Your task to perform on an android device: change the clock style Image 0: 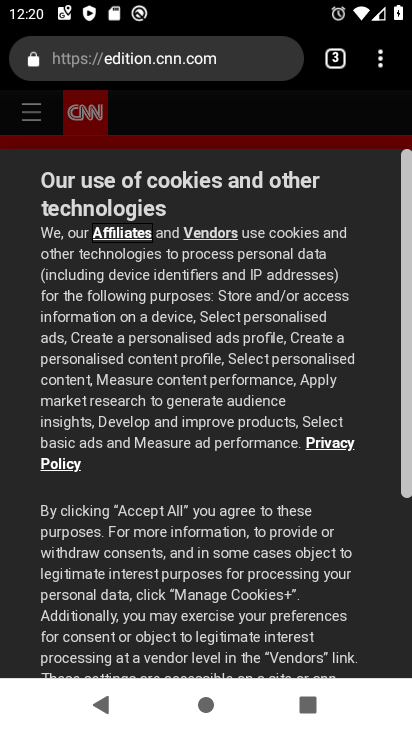
Step 0: press home button
Your task to perform on an android device: change the clock style Image 1: 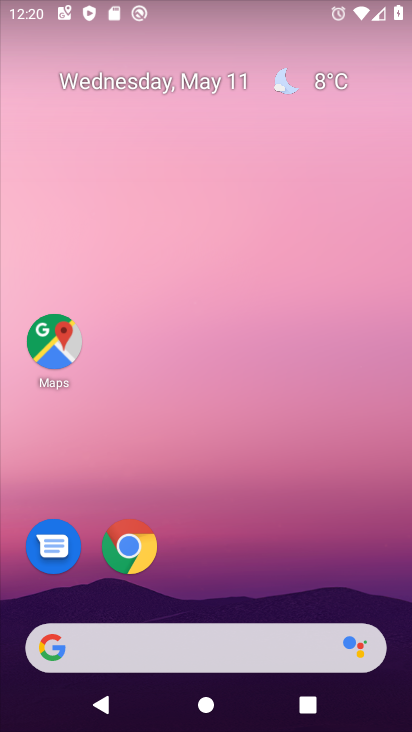
Step 1: drag from (272, 637) to (404, 74)
Your task to perform on an android device: change the clock style Image 2: 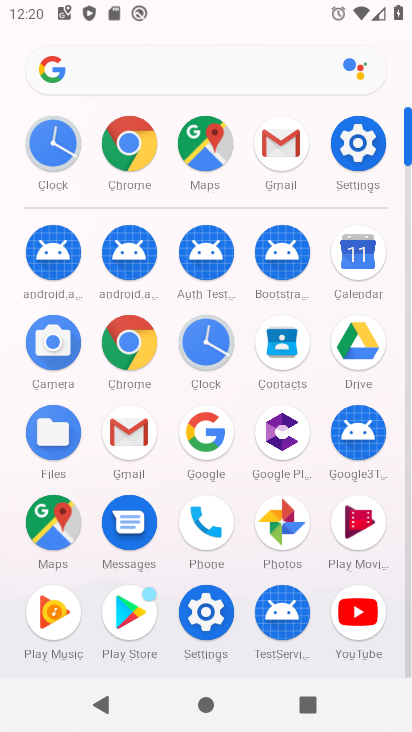
Step 2: click (218, 355)
Your task to perform on an android device: change the clock style Image 3: 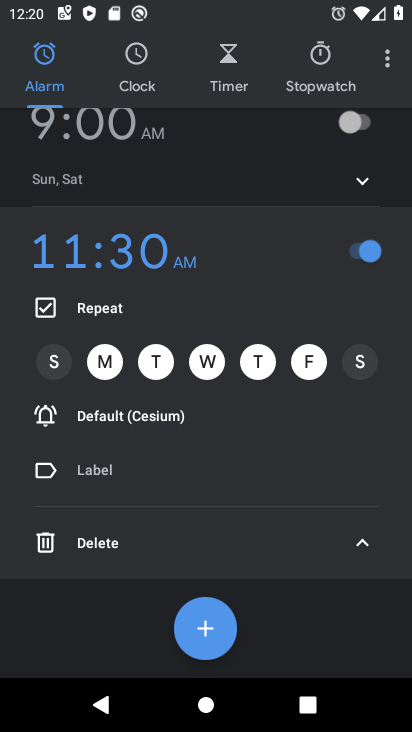
Step 3: click (387, 57)
Your task to perform on an android device: change the clock style Image 4: 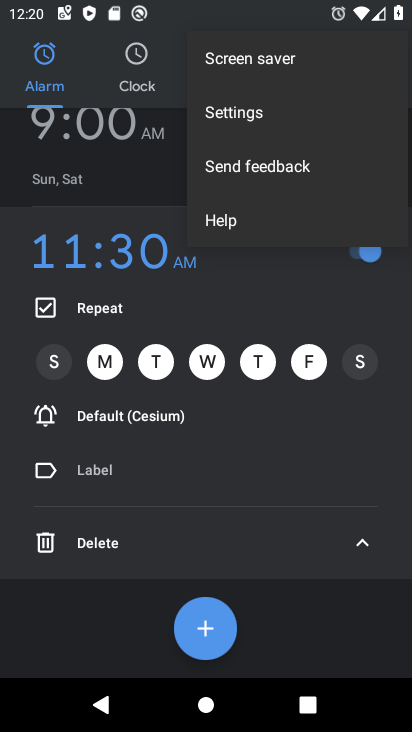
Step 4: click (250, 118)
Your task to perform on an android device: change the clock style Image 5: 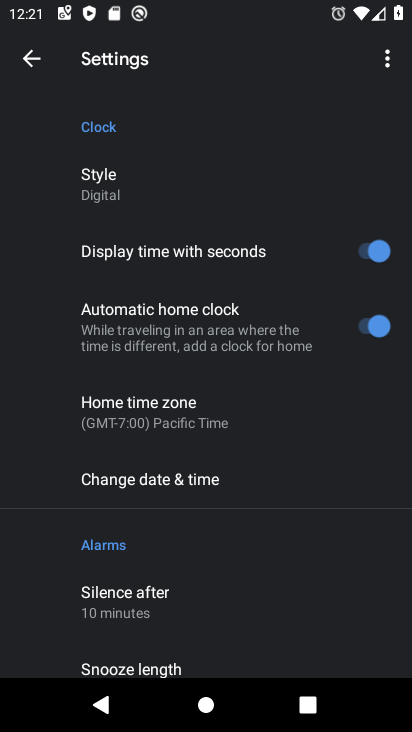
Step 5: click (121, 174)
Your task to perform on an android device: change the clock style Image 6: 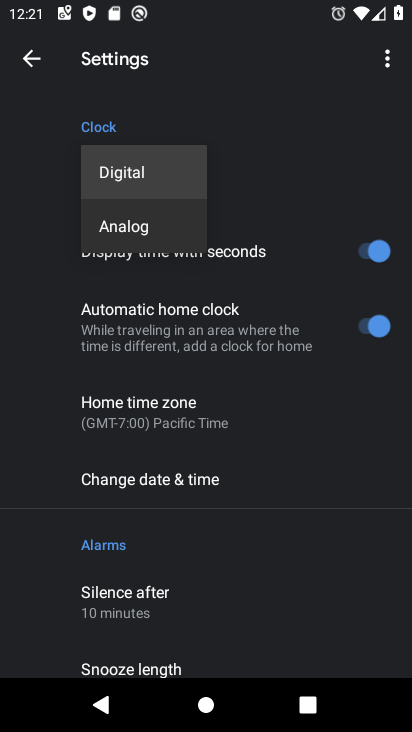
Step 6: click (131, 223)
Your task to perform on an android device: change the clock style Image 7: 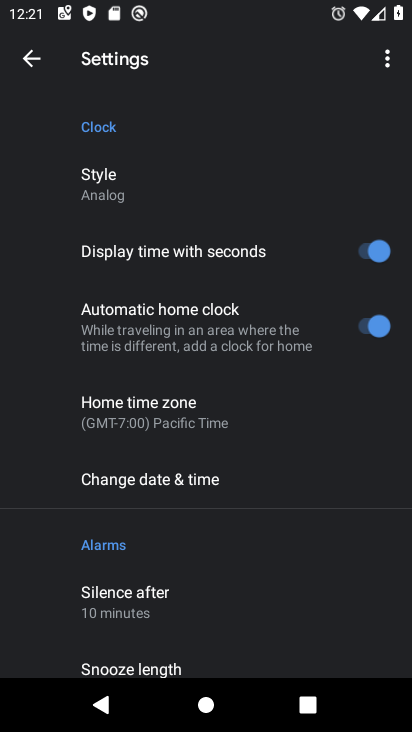
Step 7: task complete